Your task to perform on an android device: open app "Google Find My Device" (install if not already installed) Image 0: 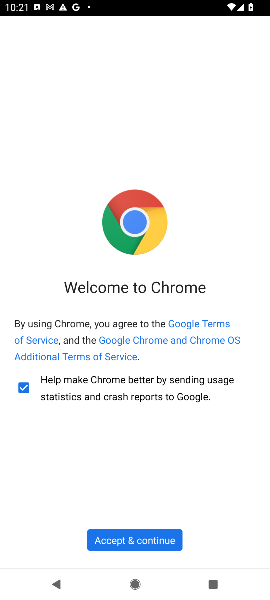
Step 0: press home button
Your task to perform on an android device: open app "Google Find My Device" (install if not already installed) Image 1: 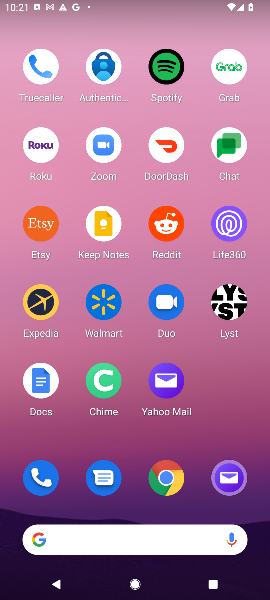
Step 1: drag from (139, 492) to (137, 71)
Your task to perform on an android device: open app "Google Find My Device" (install if not already installed) Image 2: 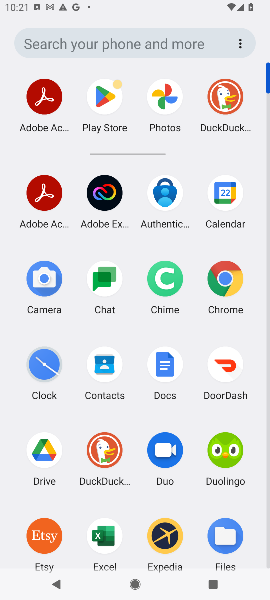
Step 2: click (112, 107)
Your task to perform on an android device: open app "Google Find My Device" (install if not already installed) Image 3: 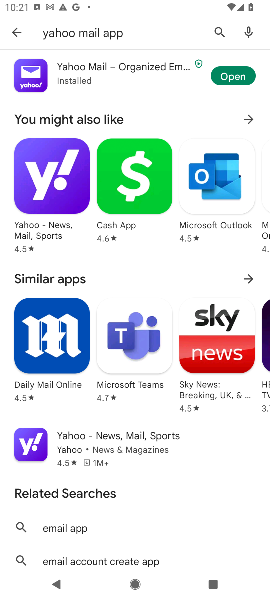
Step 3: click (217, 41)
Your task to perform on an android device: open app "Google Find My Device" (install if not already installed) Image 4: 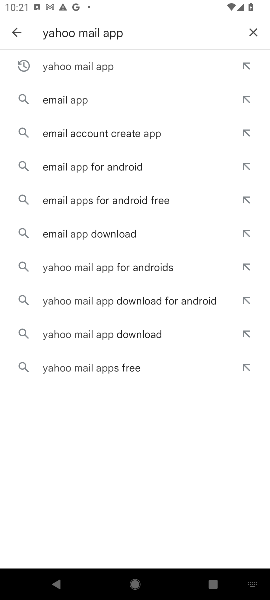
Step 4: click (250, 35)
Your task to perform on an android device: open app "Google Find My Device" (install if not already installed) Image 5: 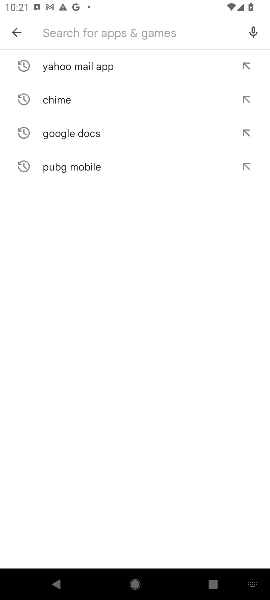
Step 5: type "google find my devices"
Your task to perform on an android device: open app "Google Find My Device" (install if not already installed) Image 6: 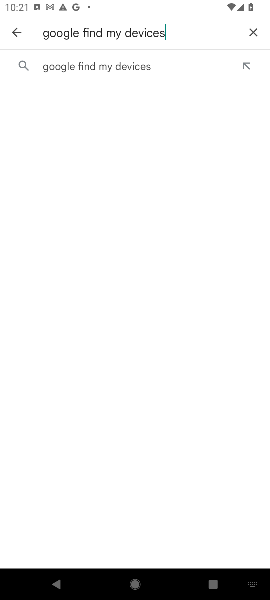
Step 6: click (118, 71)
Your task to perform on an android device: open app "Google Find My Device" (install if not already installed) Image 7: 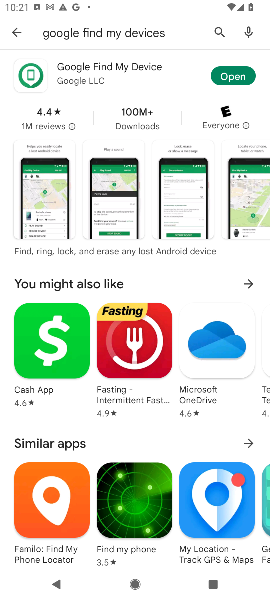
Step 7: click (217, 70)
Your task to perform on an android device: open app "Google Find My Device" (install if not already installed) Image 8: 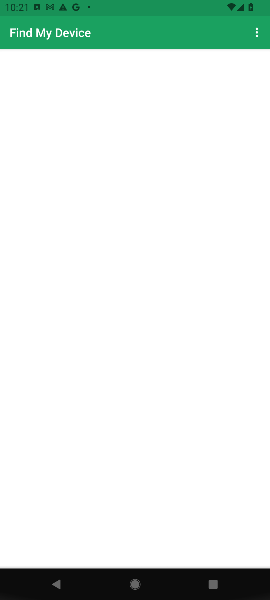
Step 8: task complete